Your task to perform on an android device: Search for Mexican restaurants on Maps Image 0: 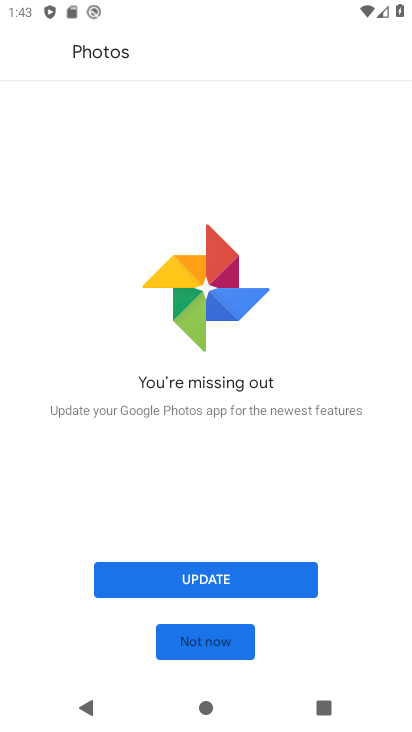
Step 0: press home button
Your task to perform on an android device: Search for Mexican restaurants on Maps Image 1: 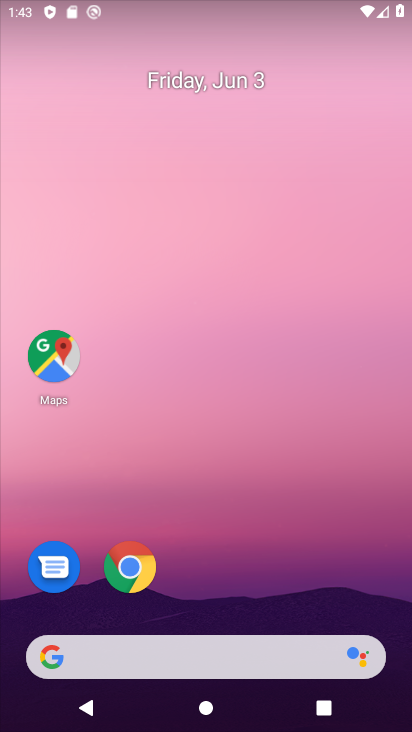
Step 1: drag from (38, 353) to (84, 353)
Your task to perform on an android device: Search for Mexican restaurants on Maps Image 2: 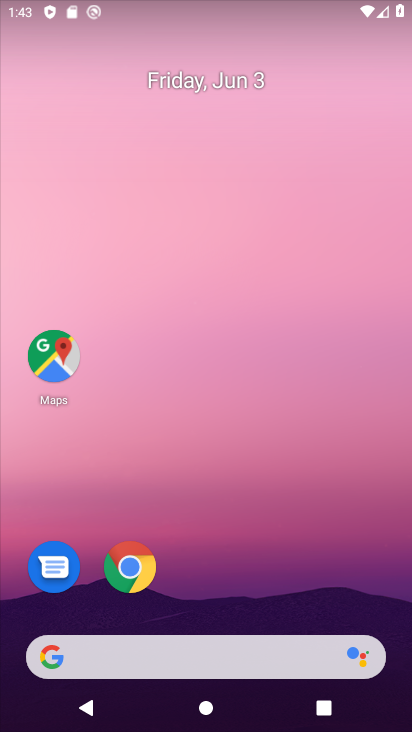
Step 2: click (56, 355)
Your task to perform on an android device: Search for Mexican restaurants on Maps Image 3: 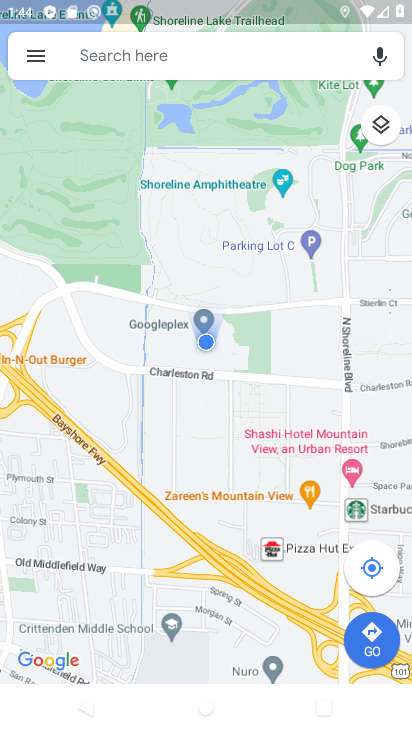
Step 3: click (150, 63)
Your task to perform on an android device: Search for Mexican restaurants on Maps Image 4: 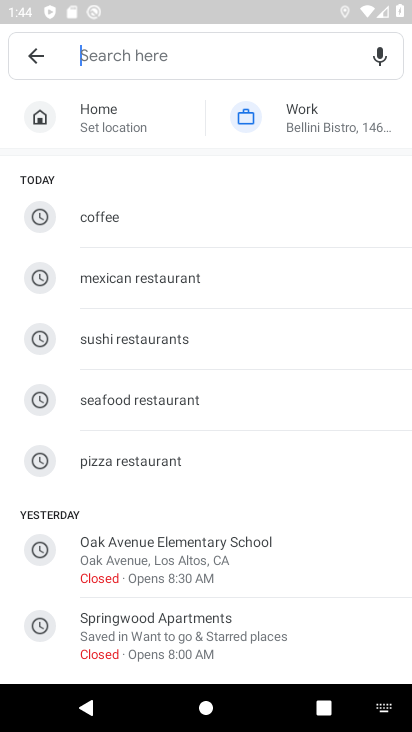
Step 4: click (159, 283)
Your task to perform on an android device: Search for Mexican restaurants on Maps Image 5: 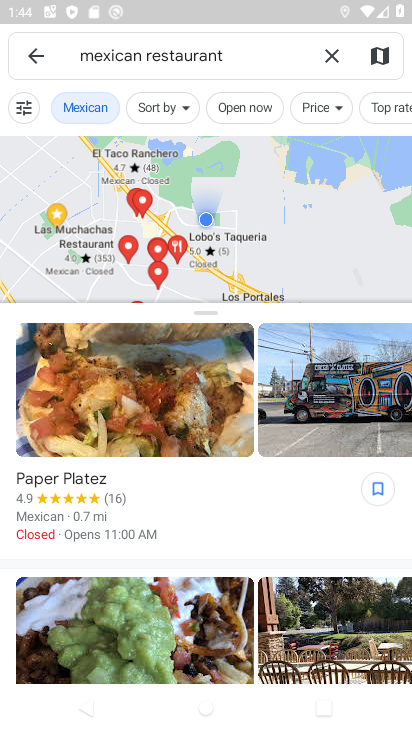
Step 5: task complete